Your task to perform on an android device: turn on the 12-hour format for clock Image 0: 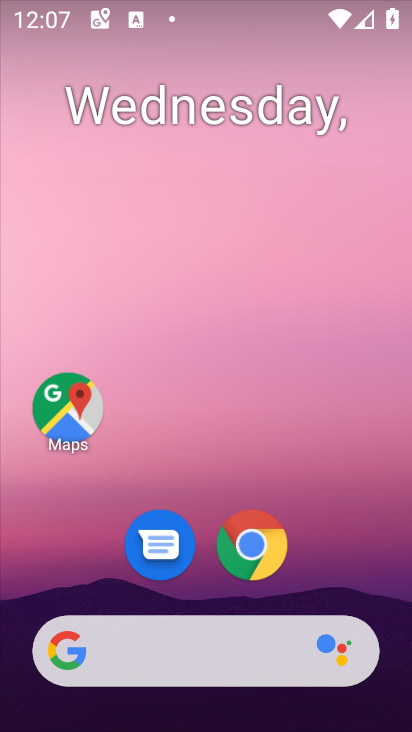
Step 0: drag from (243, 580) to (258, 157)
Your task to perform on an android device: turn on the 12-hour format for clock Image 1: 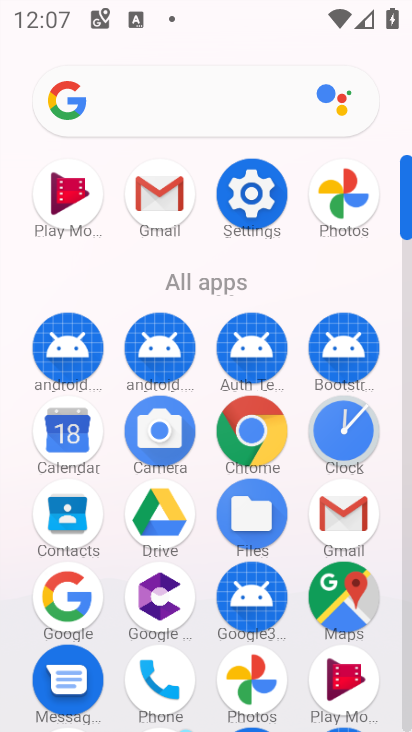
Step 1: click (345, 428)
Your task to perform on an android device: turn on the 12-hour format for clock Image 2: 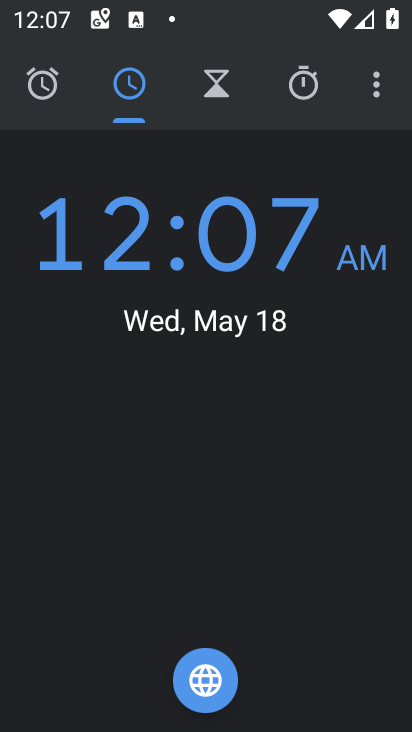
Step 2: click (377, 87)
Your task to perform on an android device: turn on the 12-hour format for clock Image 3: 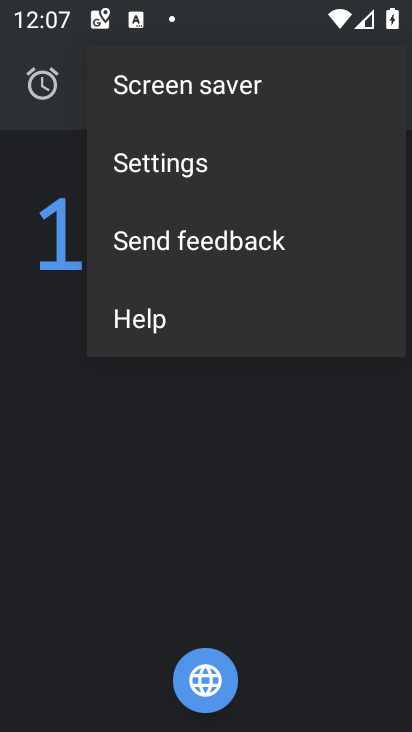
Step 3: click (182, 155)
Your task to perform on an android device: turn on the 12-hour format for clock Image 4: 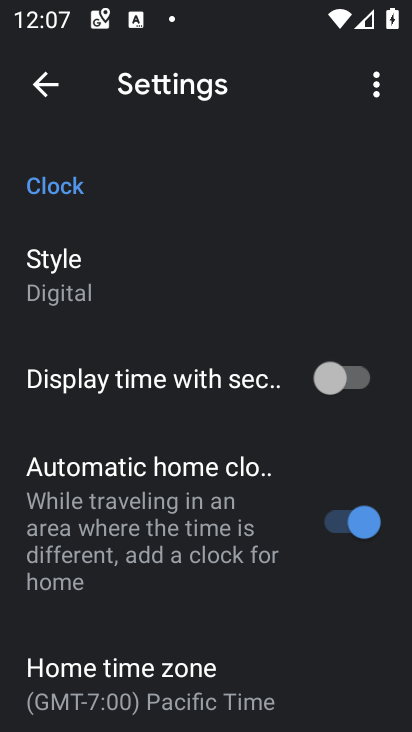
Step 4: drag from (211, 570) to (197, 153)
Your task to perform on an android device: turn on the 12-hour format for clock Image 5: 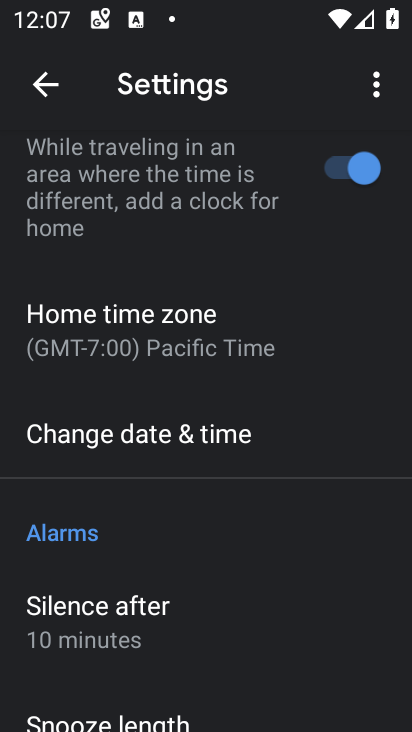
Step 5: click (155, 443)
Your task to perform on an android device: turn on the 12-hour format for clock Image 6: 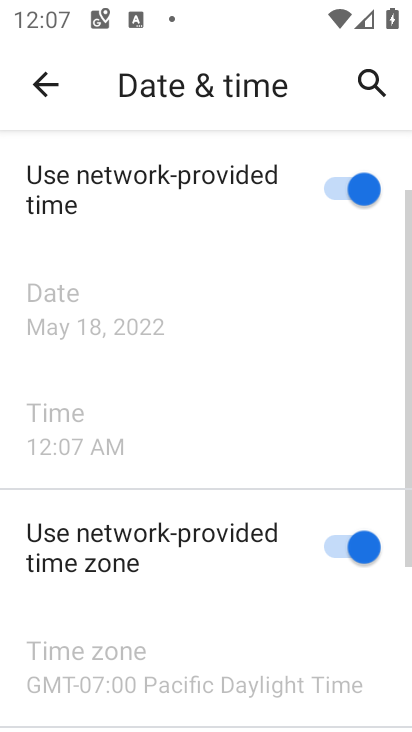
Step 6: task complete